Your task to perform on an android device: Search for the best coffee tables on Crate & Barrel Image 0: 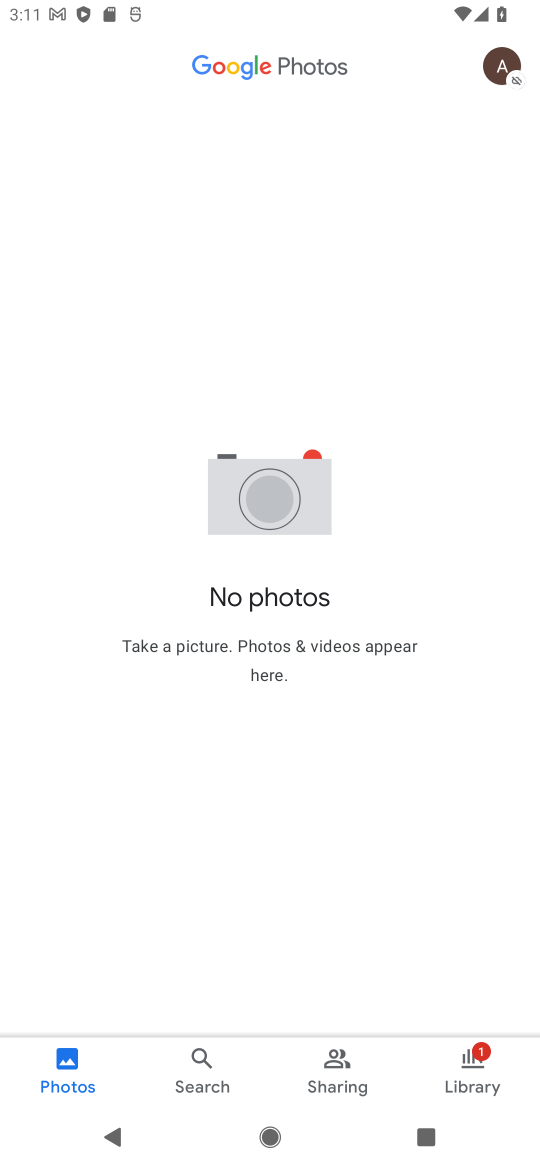
Step 0: press home button
Your task to perform on an android device: Search for the best coffee tables on Crate & Barrel Image 1: 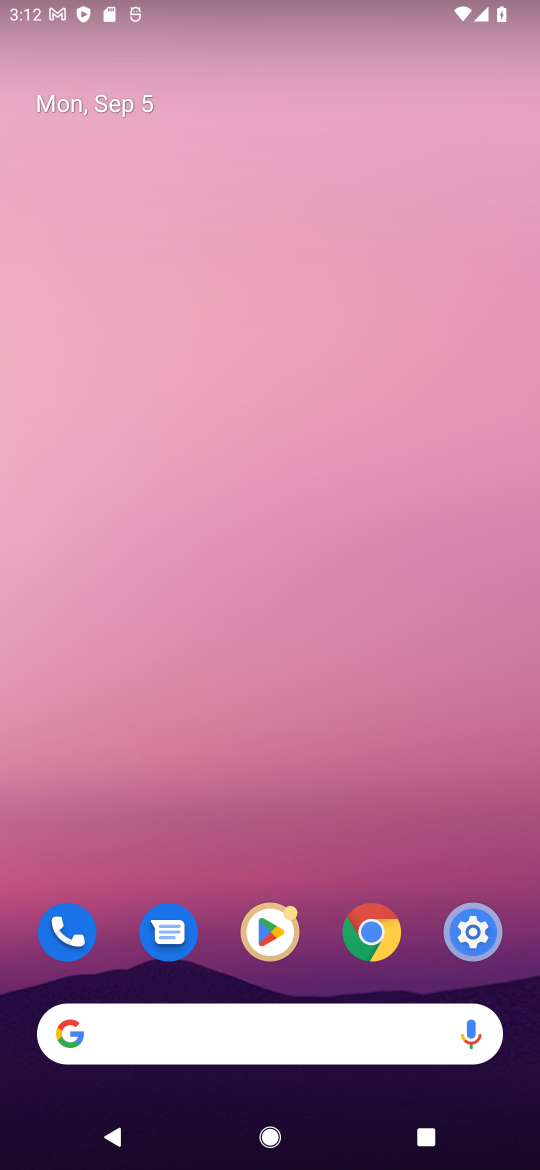
Step 1: click (153, 1023)
Your task to perform on an android device: Search for the best coffee tables on Crate & Barrel Image 2: 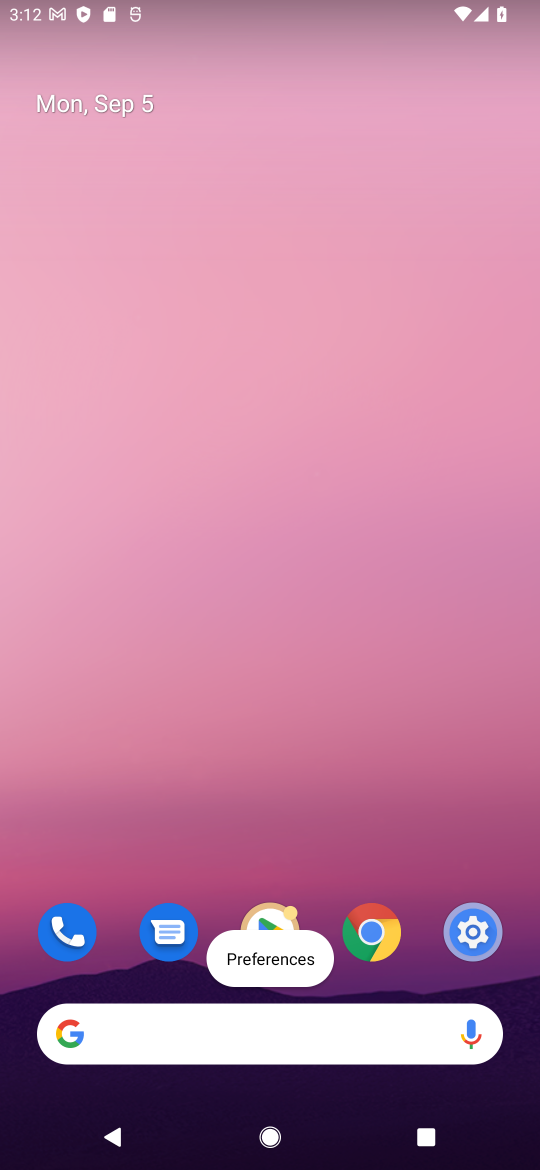
Step 2: click (228, 1052)
Your task to perform on an android device: Search for the best coffee tables on Crate & Barrel Image 3: 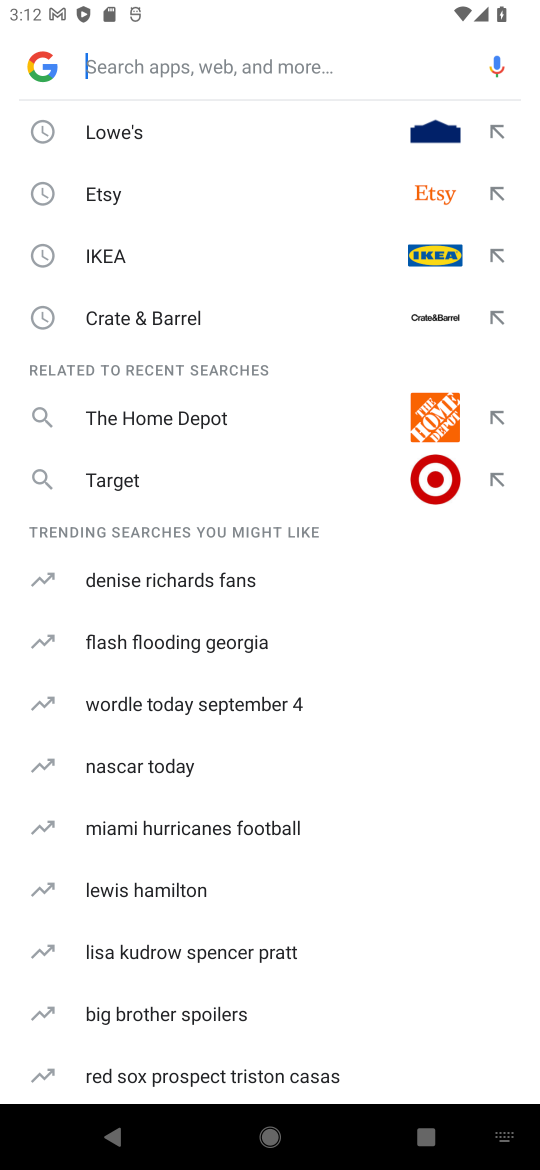
Step 3: type "Crate & Barrel"
Your task to perform on an android device: Search for the best coffee tables on Crate & Barrel Image 4: 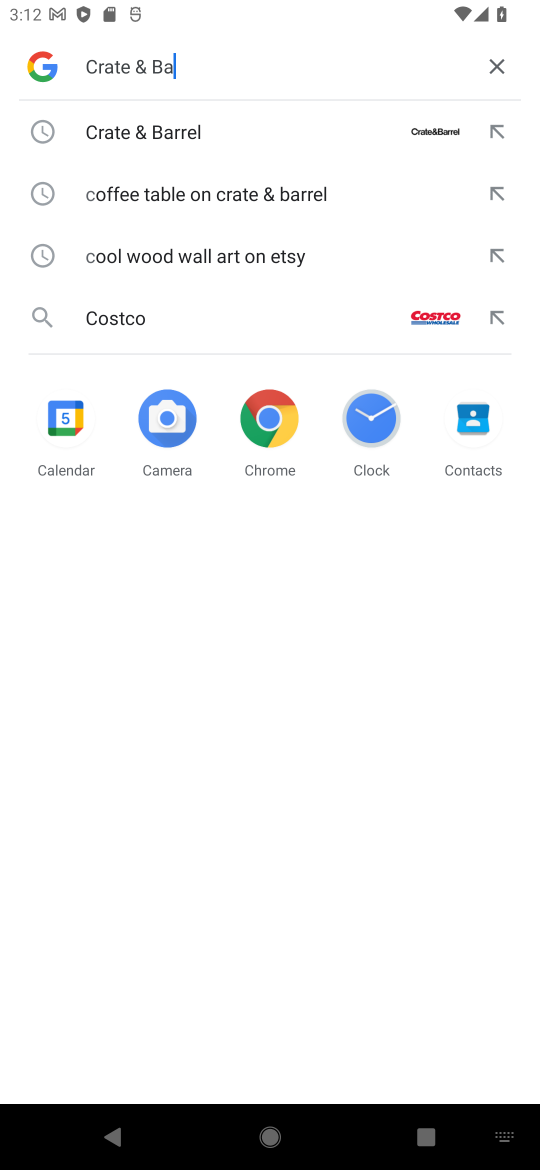
Step 4: type ""
Your task to perform on an android device: Search for the best coffee tables on Crate & Barrel Image 5: 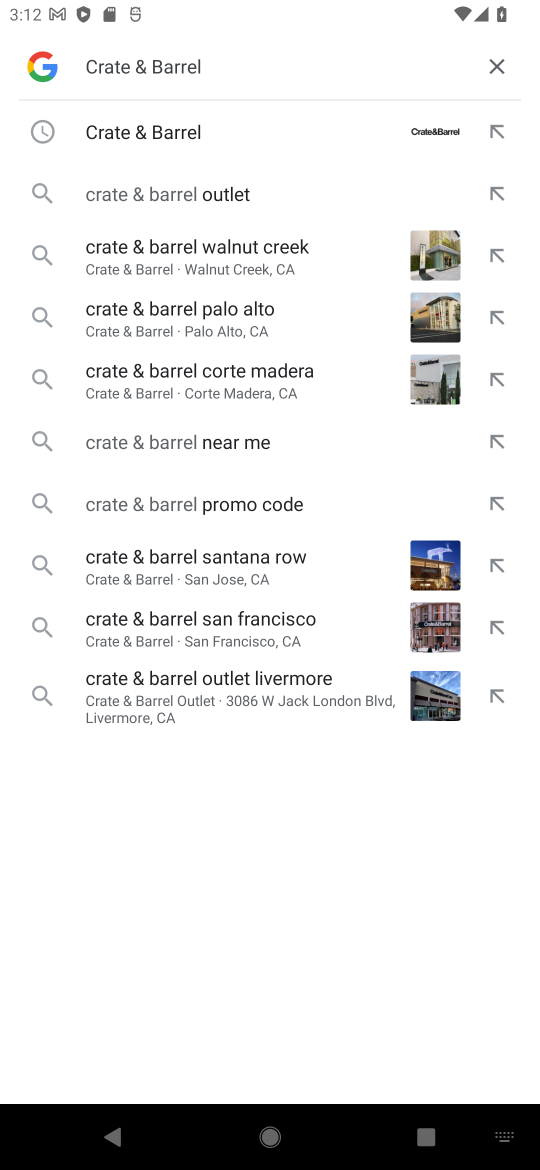
Step 5: click (215, 138)
Your task to perform on an android device: Search for the best coffee tables on Crate & Barrel Image 6: 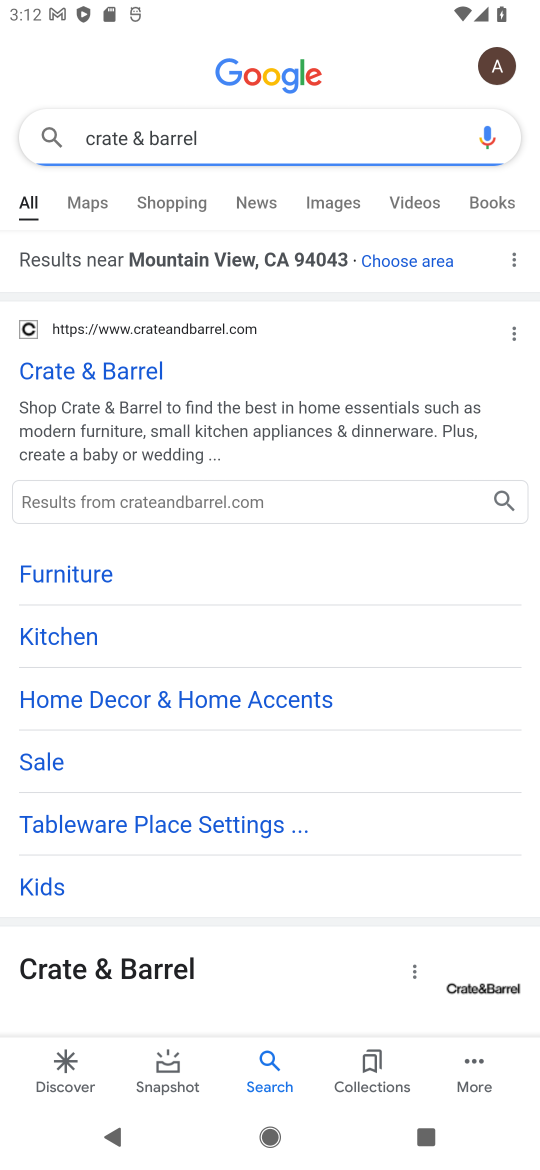
Step 6: click (78, 371)
Your task to perform on an android device: Search for the best coffee tables on Crate & Barrel Image 7: 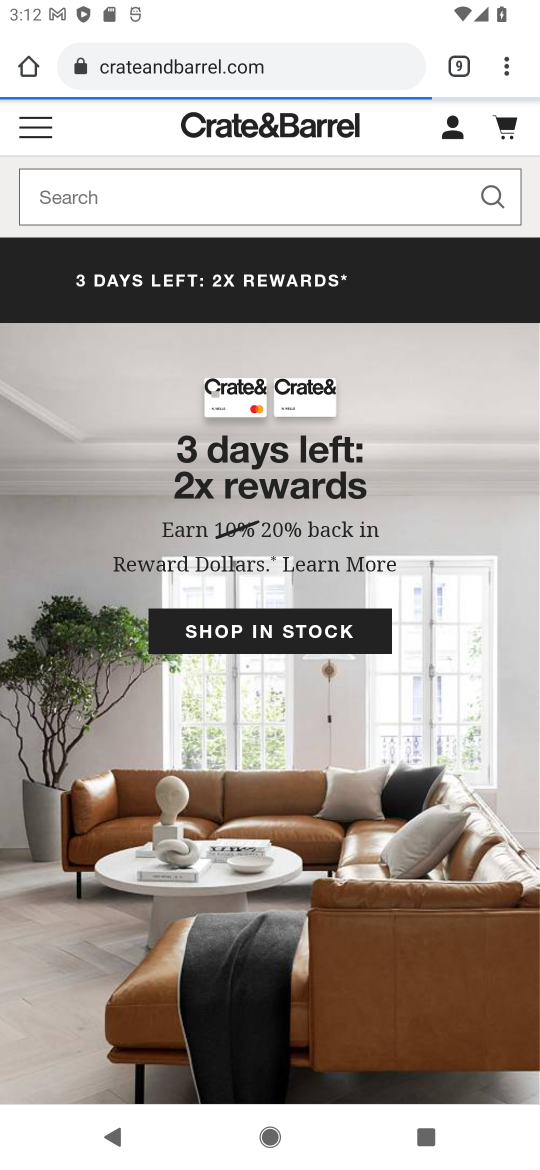
Step 7: click (353, 186)
Your task to perform on an android device: Search for the best coffee tables on Crate & Barrel Image 8: 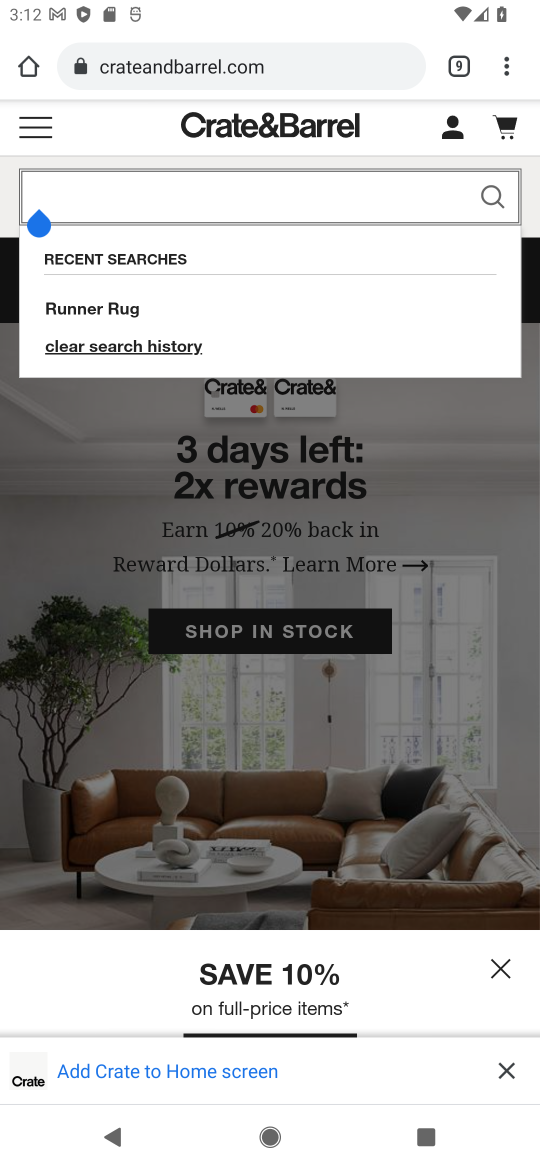
Step 8: type "coffee tables"
Your task to perform on an android device: Search for the best coffee tables on Crate & Barrel Image 9: 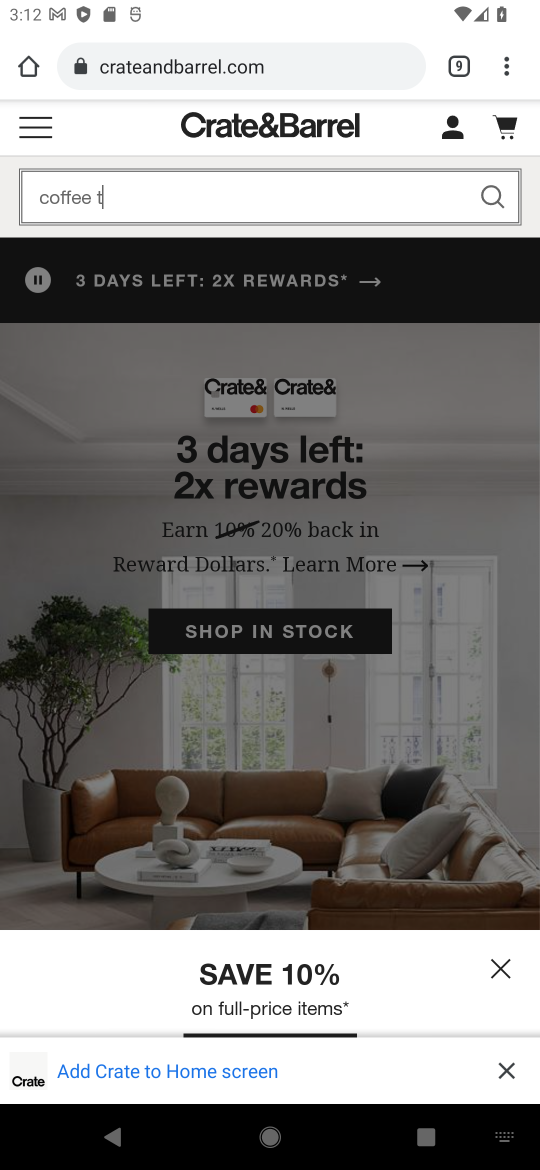
Step 9: type ""
Your task to perform on an android device: Search for the best coffee tables on Crate & Barrel Image 10: 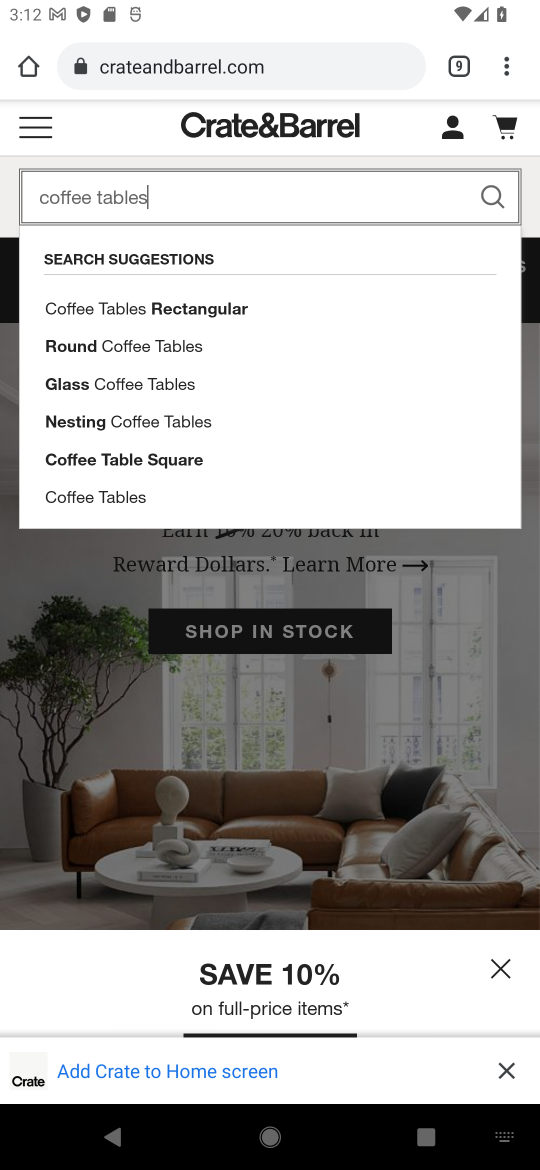
Step 10: click (176, 490)
Your task to perform on an android device: Search for the best coffee tables on Crate & Barrel Image 11: 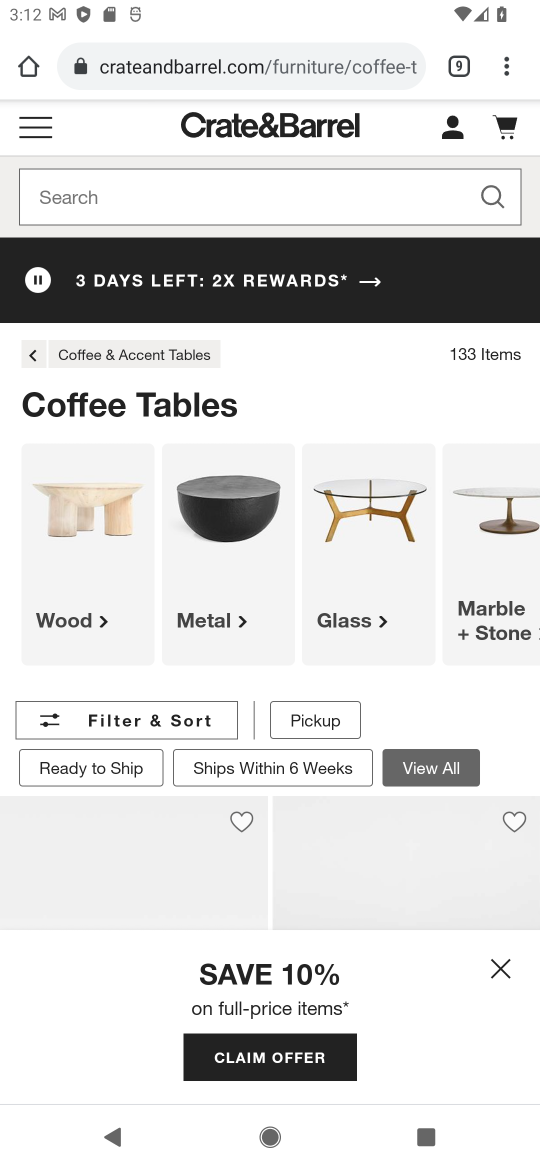
Step 11: drag from (170, 858) to (189, 484)
Your task to perform on an android device: Search for the best coffee tables on Crate & Barrel Image 12: 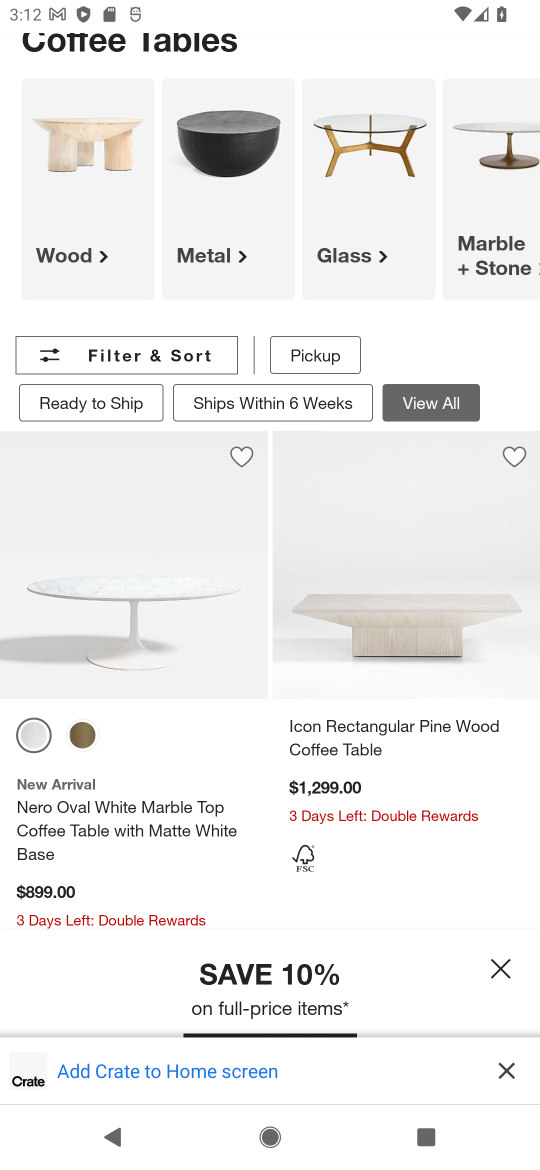
Step 12: click (368, 419)
Your task to perform on an android device: Search for the best coffee tables on Crate & Barrel Image 13: 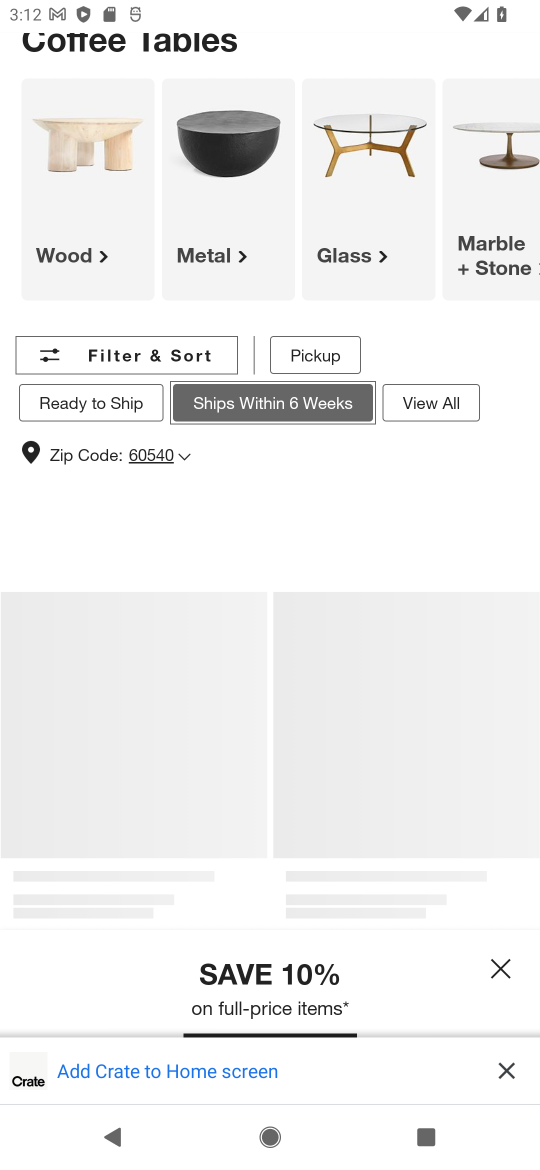
Step 13: task complete